Your task to perform on an android device: change the upload size in google photos Image 0: 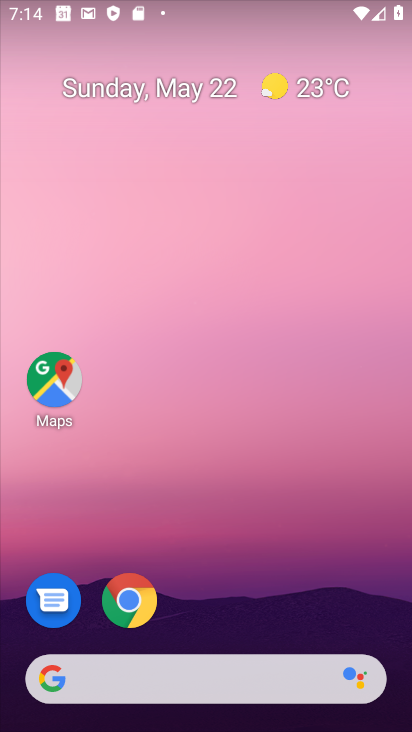
Step 0: drag from (370, 613) to (279, 23)
Your task to perform on an android device: change the upload size in google photos Image 1: 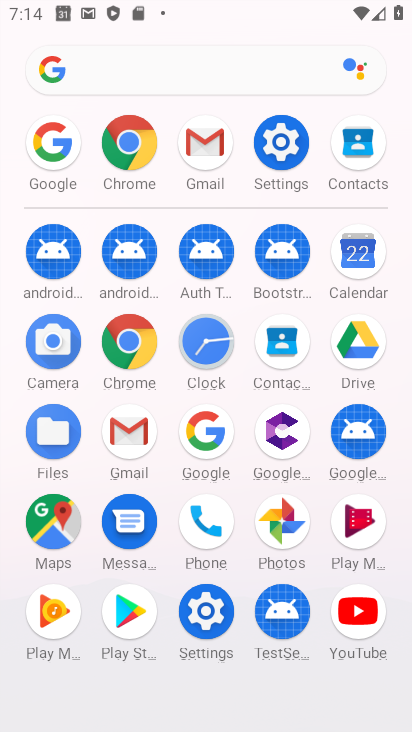
Step 1: click (280, 521)
Your task to perform on an android device: change the upload size in google photos Image 2: 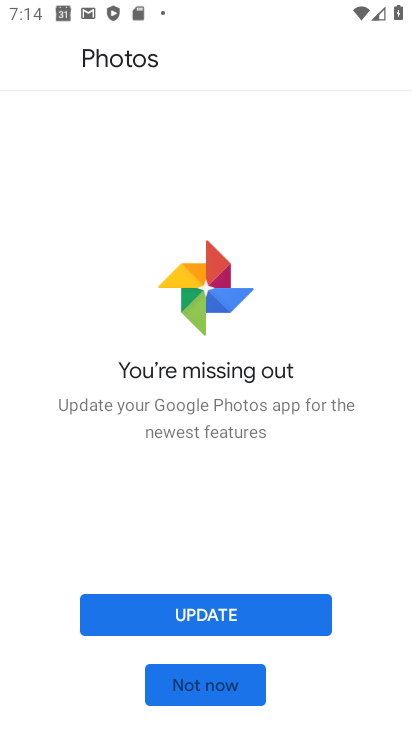
Step 2: click (198, 611)
Your task to perform on an android device: change the upload size in google photos Image 3: 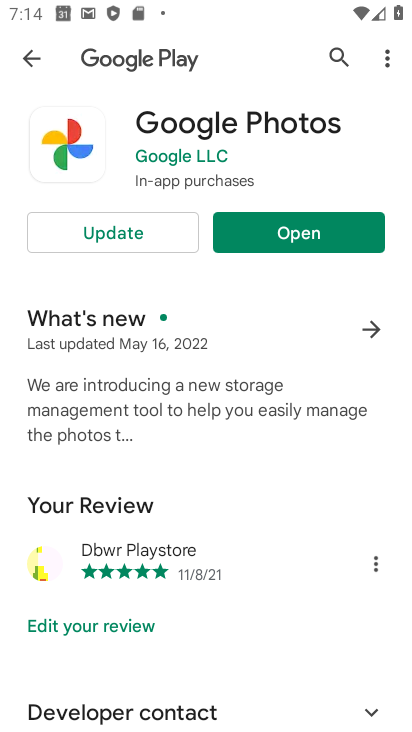
Step 3: click (133, 219)
Your task to perform on an android device: change the upload size in google photos Image 4: 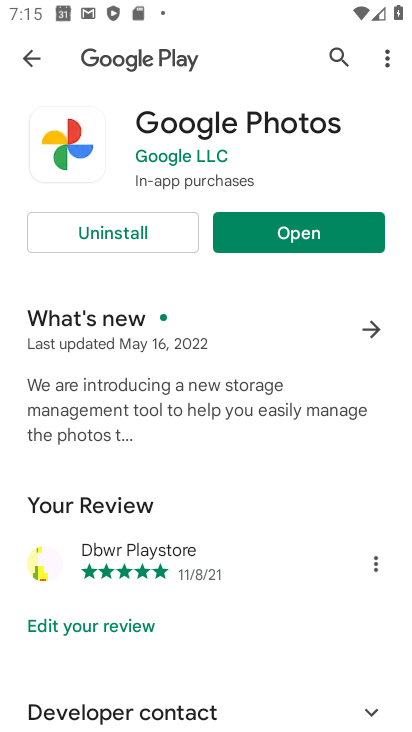
Step 4: click (253, 238)
Your task to perform on an android device: change the upload size in google photos Image 5: 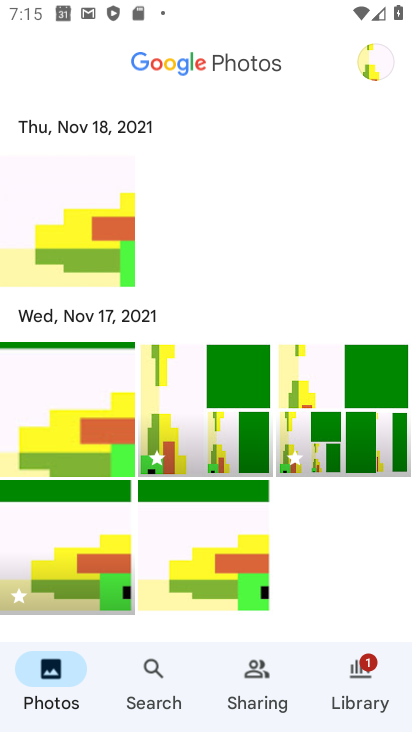
Step 5: click (382, 52)
Your task to perform on an android device: change the upload size in google photos Image 6: 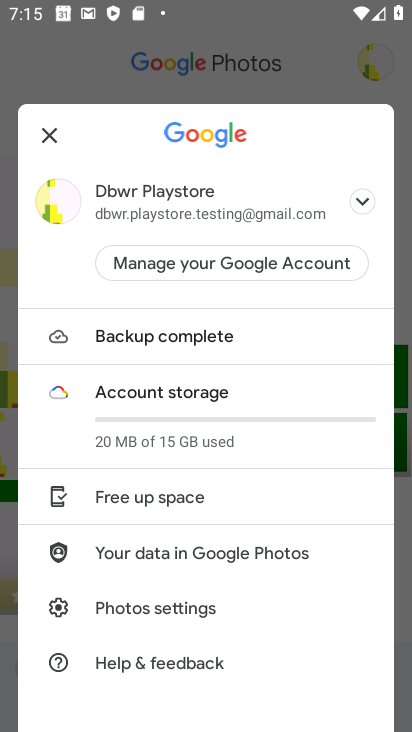
Step 6: click (177, 609)
Your task to perform on an android device: change the upload size in google photos Image 7: 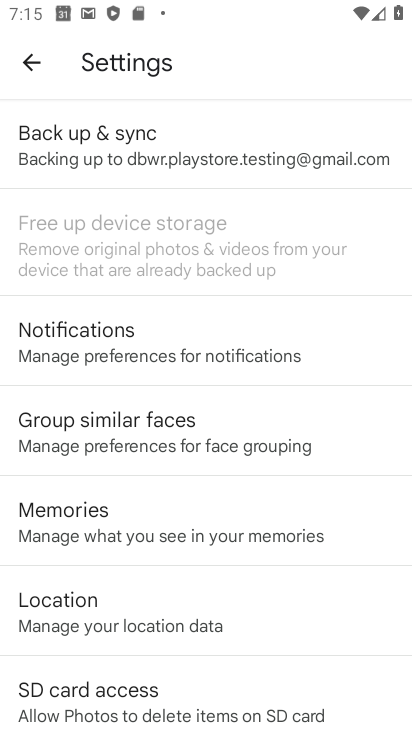
Step 7: press back button
Your task to perform on an android device: change the upload size in google photos Image 8: 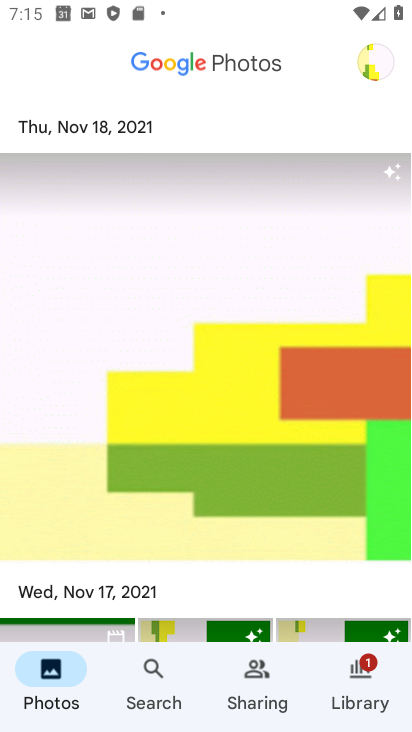
Step 8: click (388, 52)
Your task to perform on an android device: change the upload size in google photos Image 9: 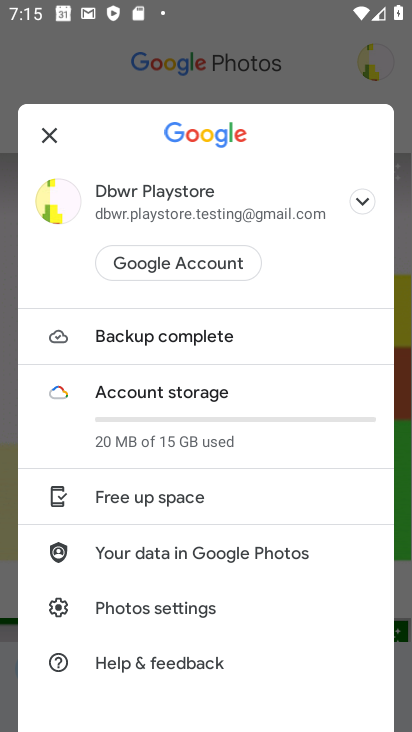
Step 9: click (182, 604)
Your task to perform on an android device: change the upload size in google photos Image 10: 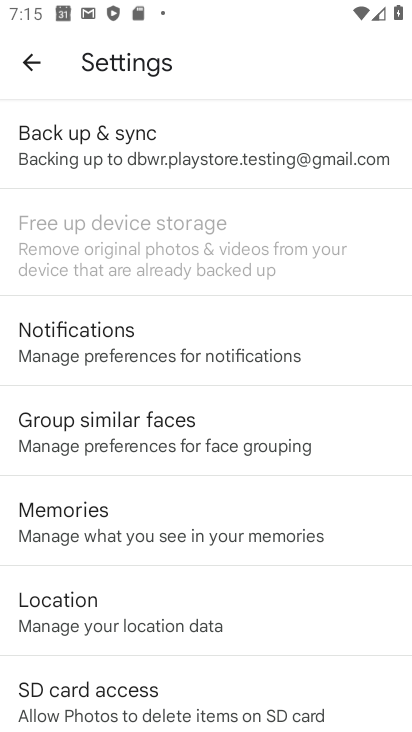
Step 10: drag from (182, 604) to (179, 330)
Your task to perform on an android device: change the upload size in google photos Image 11: 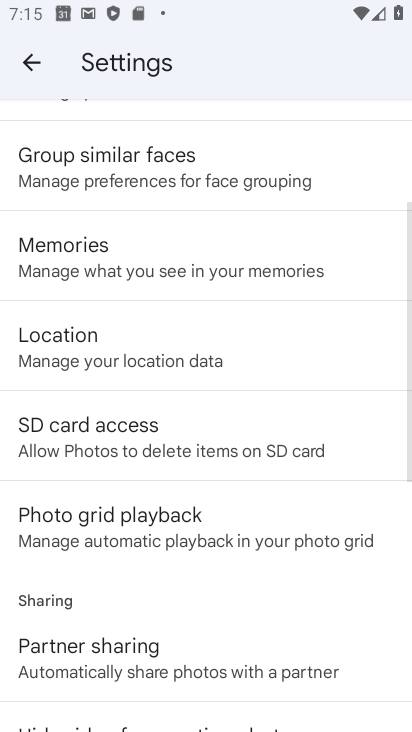
Step 11: drag from (177, 328) to (138, 725)
Your task to perform on an android device: change the upload size in google photos Image 12: 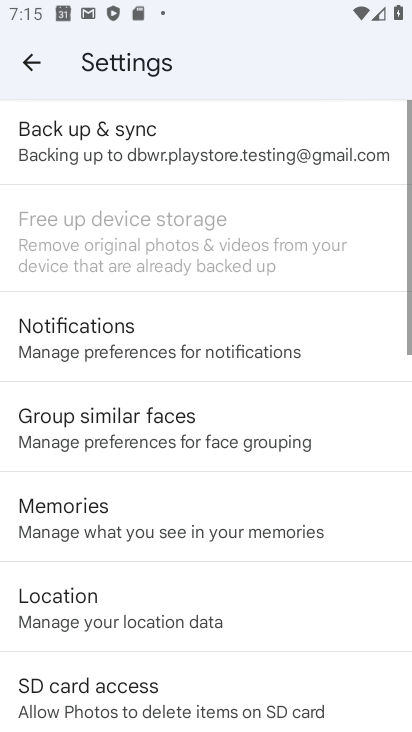
Step 12: click (163, 133)
Your task to perform on an android device: change the upload size in google photos Image 13: 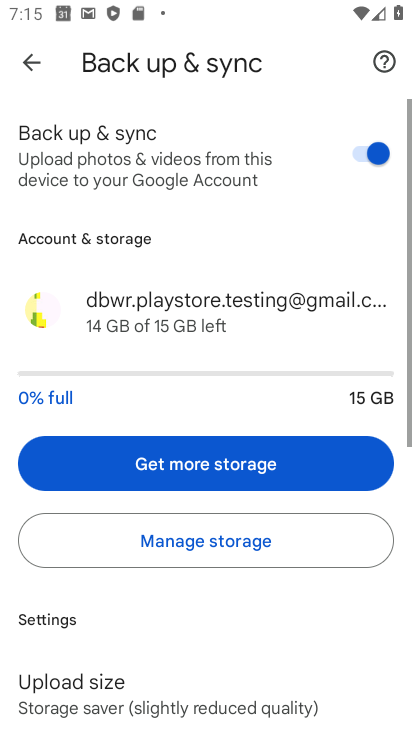
Step 13: drag from (171, 629) to (157, 279)
Your task to perform on an android device: change the upload size in google photos Image 14: 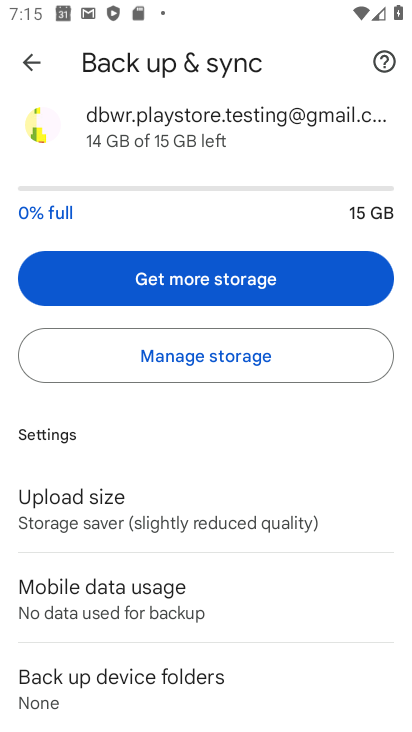
Step 14: click (101, 545)
Your task to perform on an android device: change the upload size in google photos Image 15: 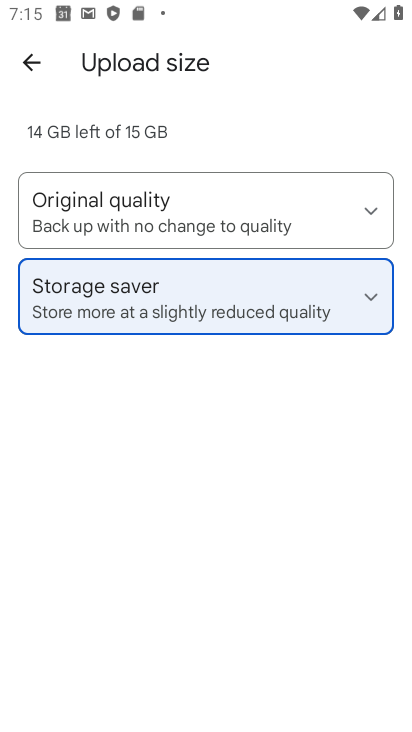
Step 15: click (148, 234)
Your task to perform on an android device: change the upload size in google photos Image 16: 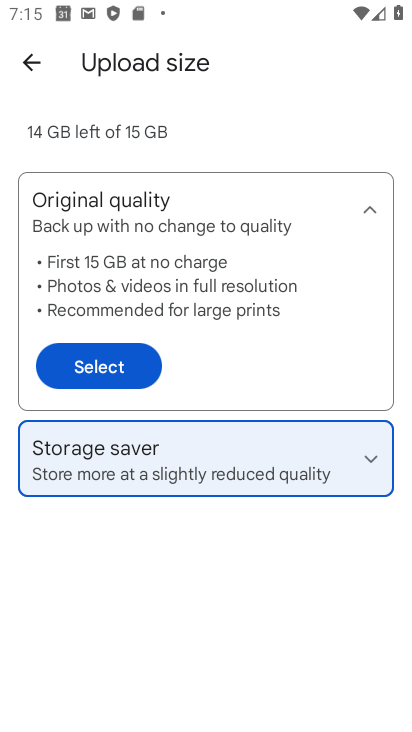
Step 16: click (88, 380)
Your task to perform on an android device: change the upload size in google photos Image 17: 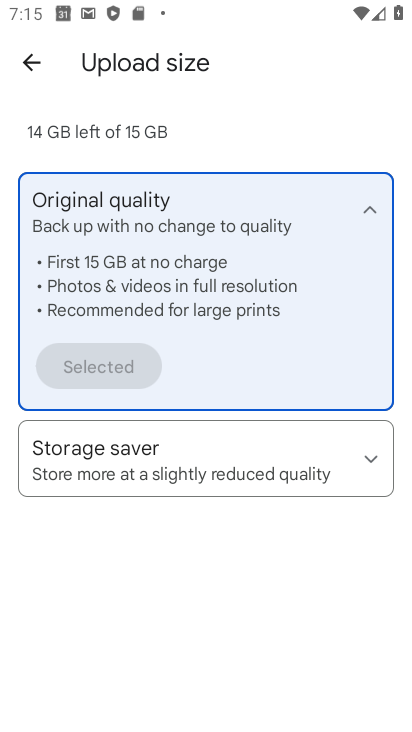
Step 17: task complete